Your task to perform on an android device: Go to network settings Image 0: 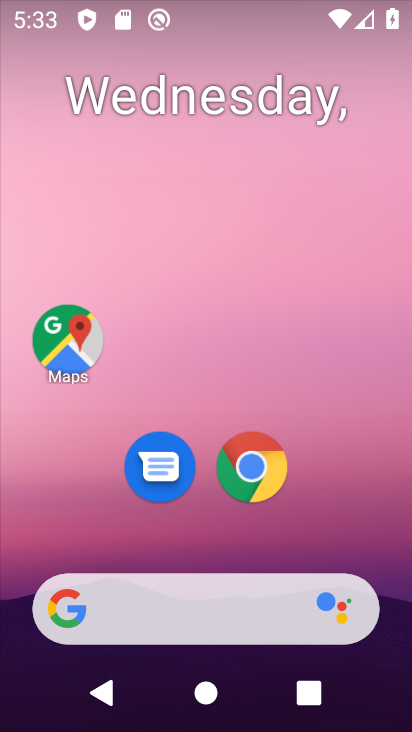
Step 0: drag from (315, 523) to (374, 94)
Your task to perform on an android device: Go to network settings Image 1: 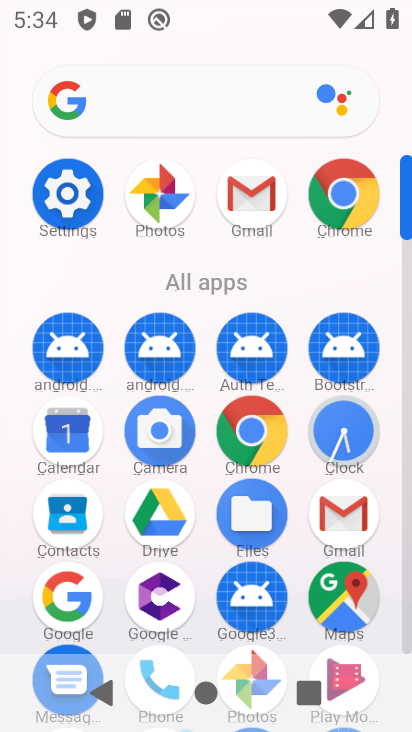
Step 1: click (74, 195)
Your task to perform on an android device: Go to network settings Image 2: 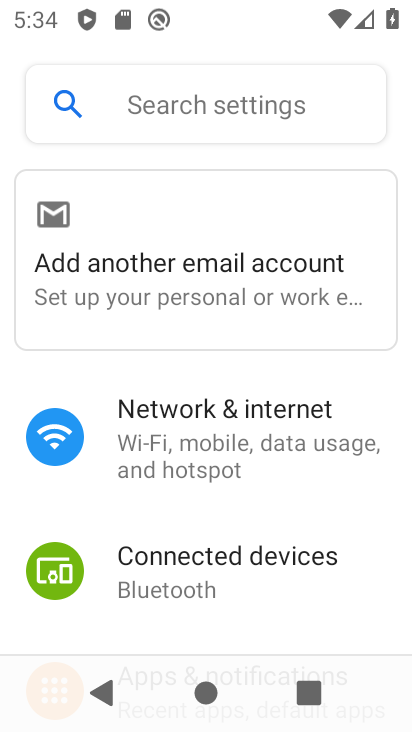
Step 2: click (150, 420)
Your task to perform on an android device: Go to network settings Image 3: 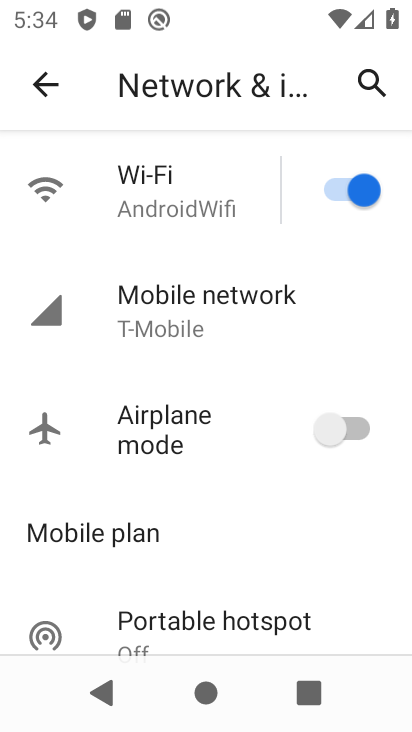
Step 3: task complete